Your task to perform on an android device: Find coffee shops on Maps Image 0: 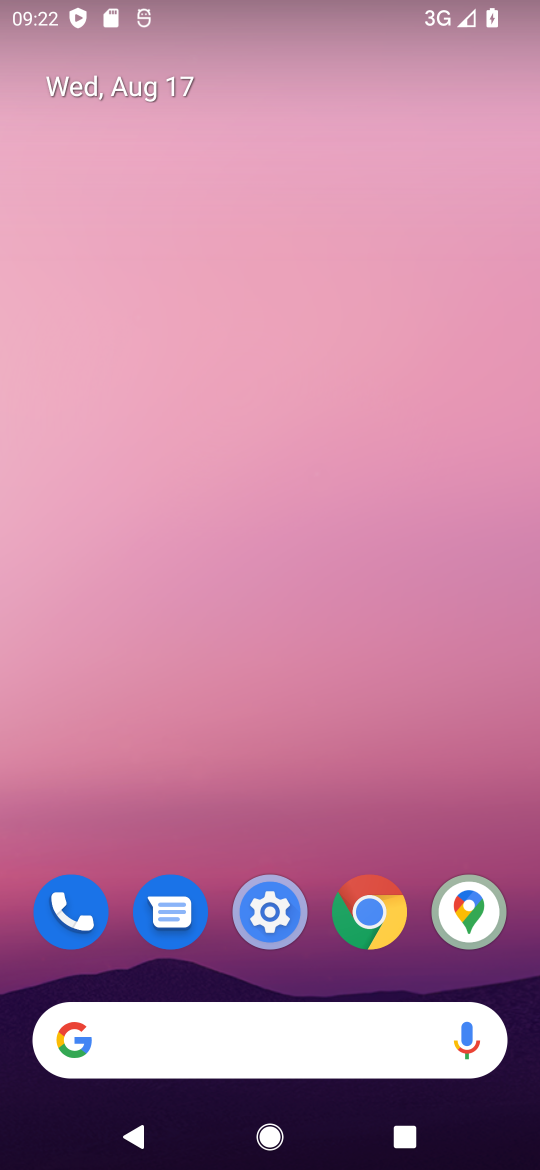
Step 0: drag from (387, 764) to (387, 109)
Your task to perform on an android device: Find coffee shops on Maps Image 1: 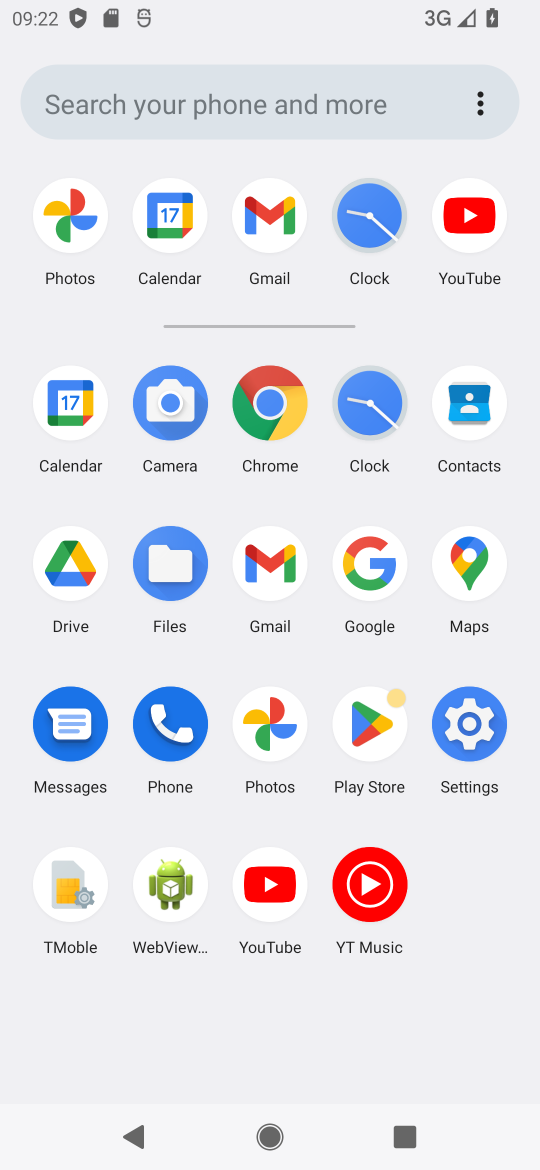
Step 1: click (461, 583)
Your task to perform on an android device: Find coffee shops on Maps Image 2: 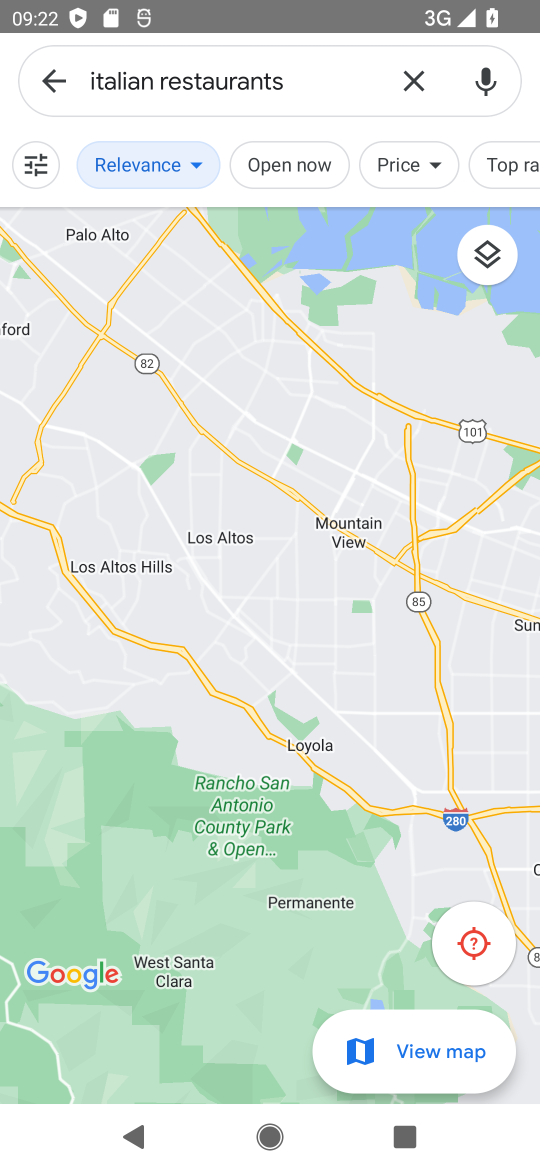
Step 2: click (359, 68)
Your task to perform on an android device: Find coffee shops on Maps Image 3: 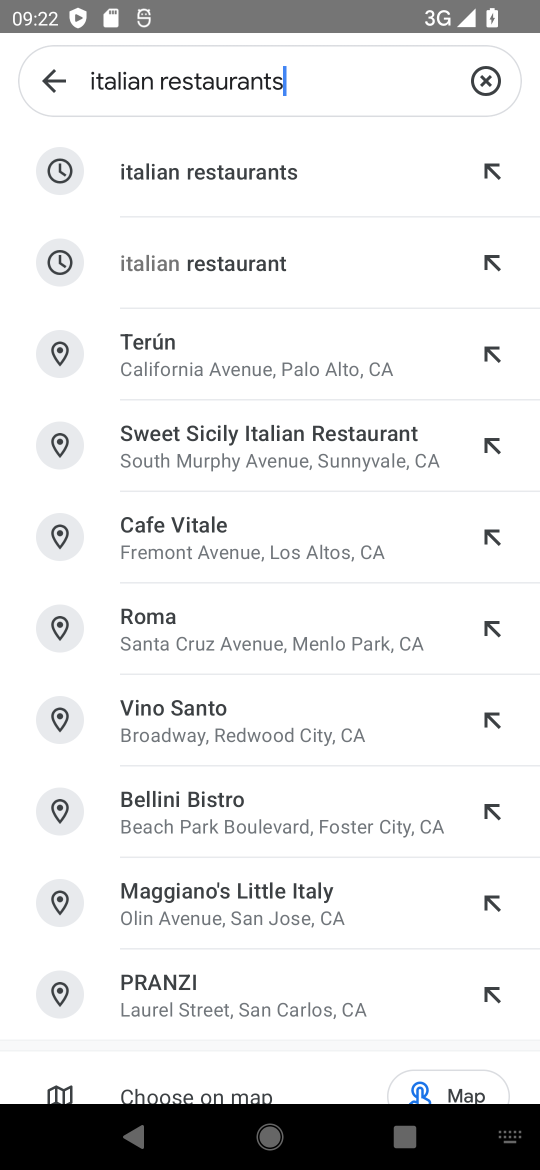
Step 3: click (480, 76)
Your task to perform on an android device: Find coffee shops on Maps Image 4: 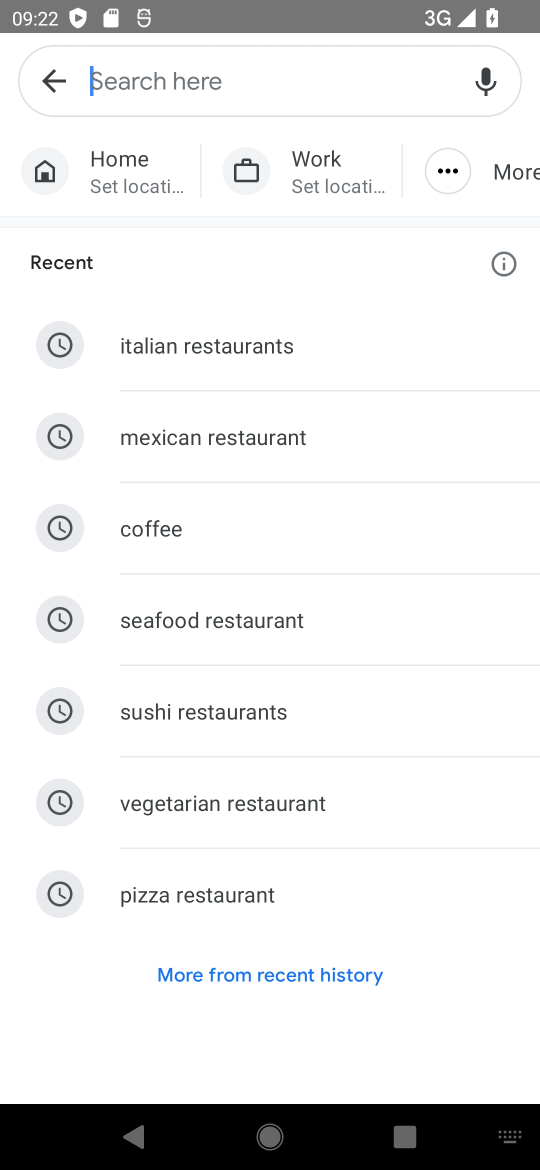
Step 4: click (204, 530)
Your task to perform on an android device: Find coffee shops on Maps Image 5: 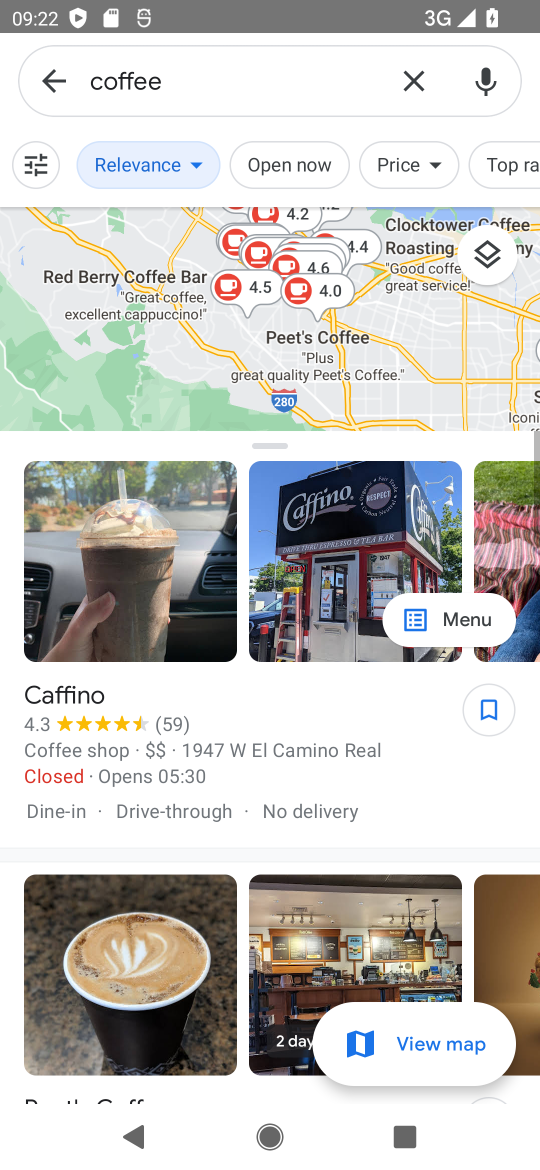
Step 5: task complete